Your task to perform on an android device: Open Wikipedia Image 0: 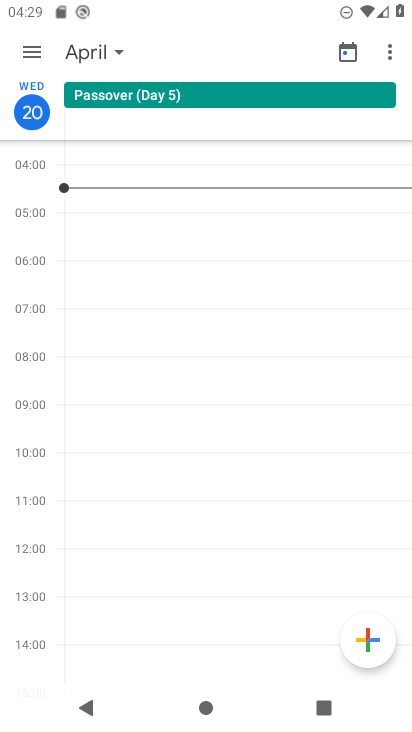
Step 0: press home button
Your task to perform on an android device: Open Wikipedia Image 1: 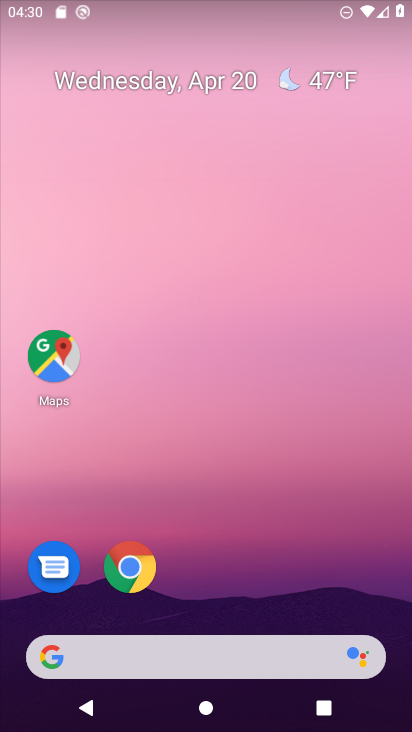
Step 1: click (131, 571)
Your task to perform on an android device: Open Wikipedia Image 2: 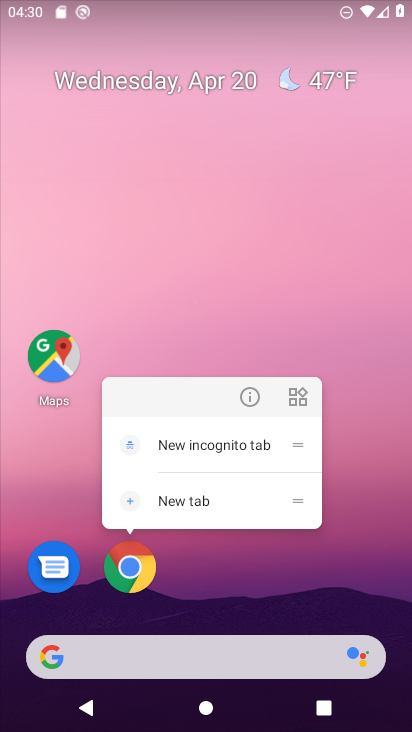
Step 2: click (199, 499)
Your task to perform on an android device: Open Wikipedia Image 3: 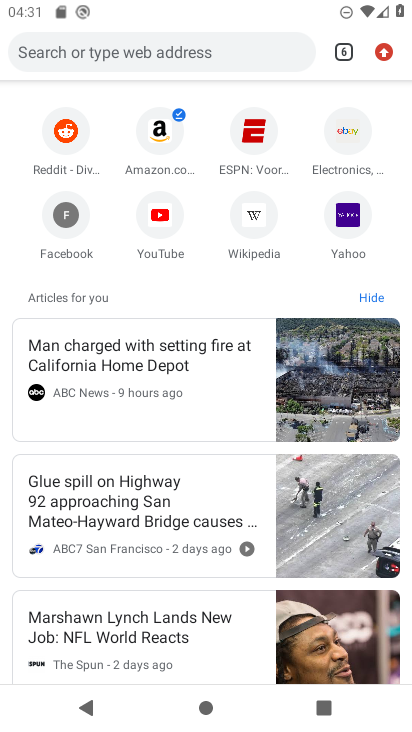
Step 3: click (267, 204)
Your task to perform on an android device: Open Wikipedia Image 4: 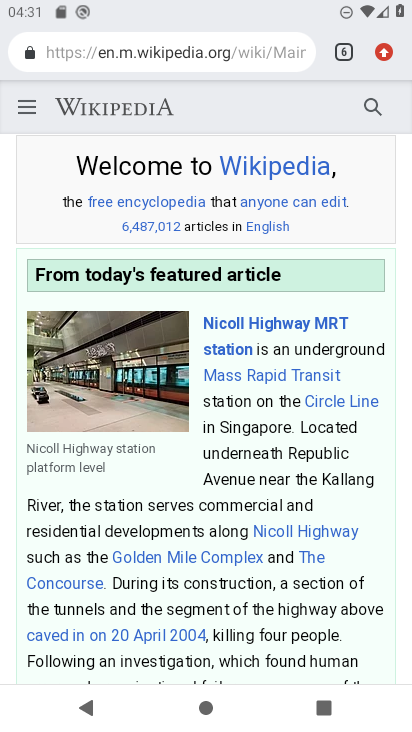
Step 4: task complete